Your task to perform on an android device: open app "ZOOM Cloud Meetings" (install if not already installed) and enter user name: "bauxite@icloud.com" and password: "dim" Image 0: 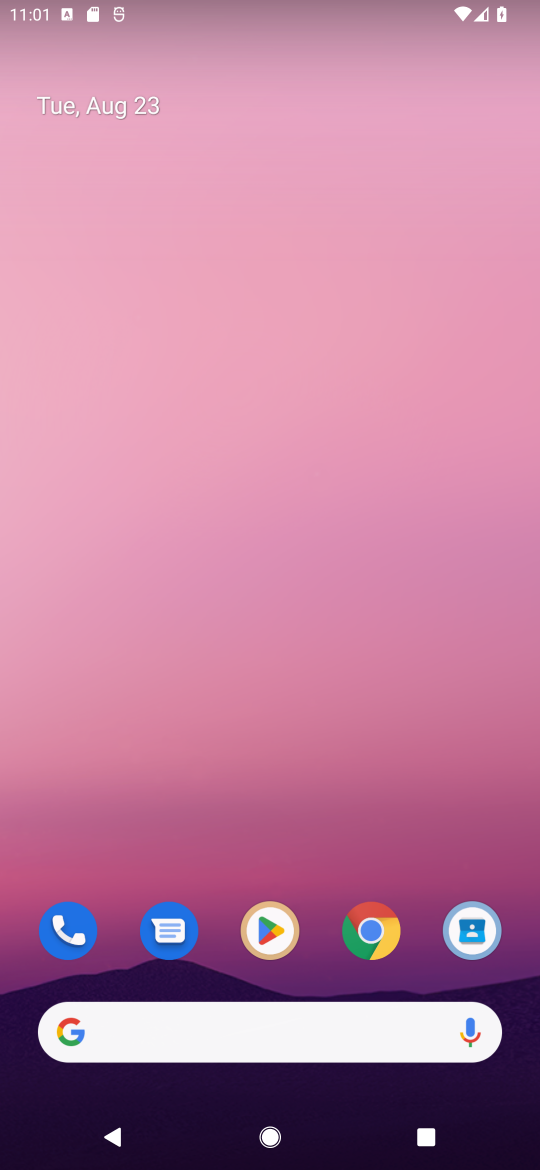
Step 0: click (280, 908)
Your task to perform on an android device: open app "ZOOM Cloud Meetings" (install if not already installed) and enter user name: "bauxite@icloud.com" and password: "dim" Image 1: 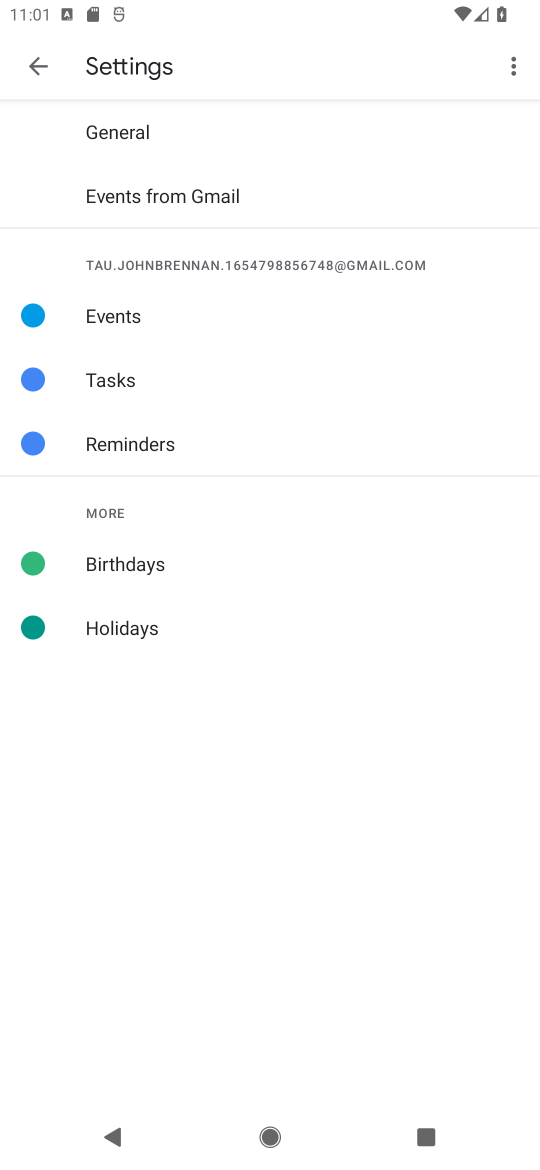
Step 1: press home button
Your task to perform on an android device: open app "ZOOM Cloud Meetings" (install if not already installed) and enter user name: "bauxite@icloud.com" and password: "dim" Image 2: 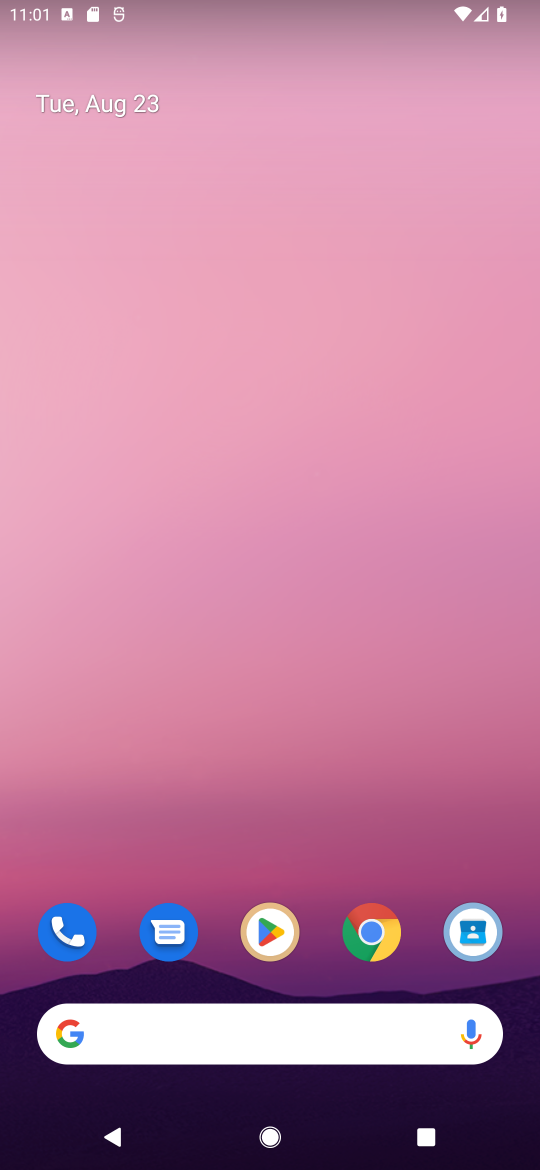
Step 2: click (252, 933)
Your task to perform on an android device: open app "ZOOM Cloud Meetings" (install if not already installed) and enter user name: "bauxite@icloud.com" and password: "dim" Image 3: 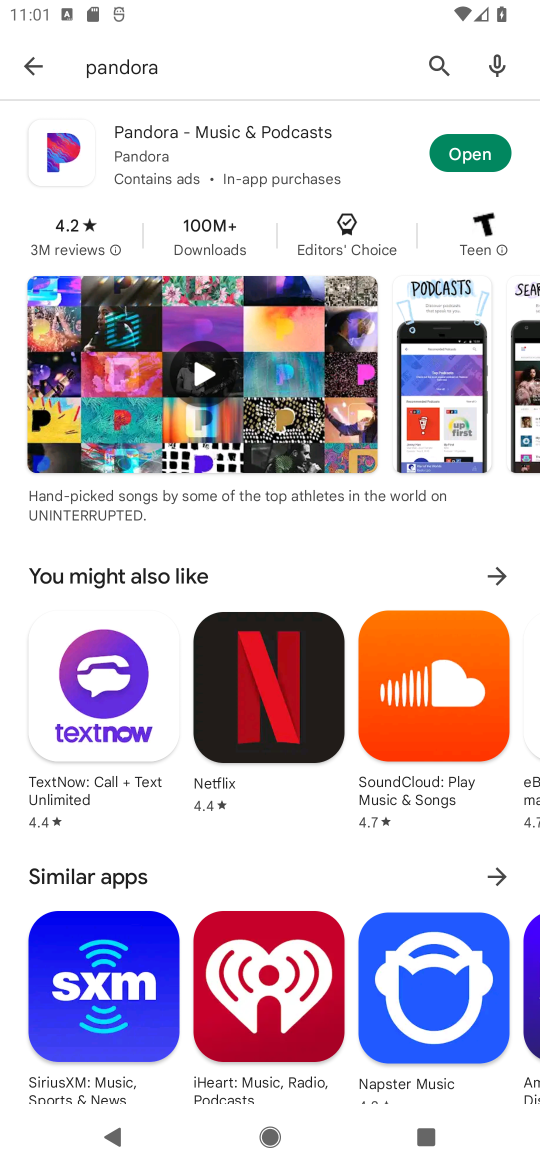
Step 3: click (448, 63)
Your task to perform on an android device: open app "ZOOM Cloud Meetings" (install if not already installed) and enter user name: "bauxite@icloud.com" and password: "dim" Image 4: 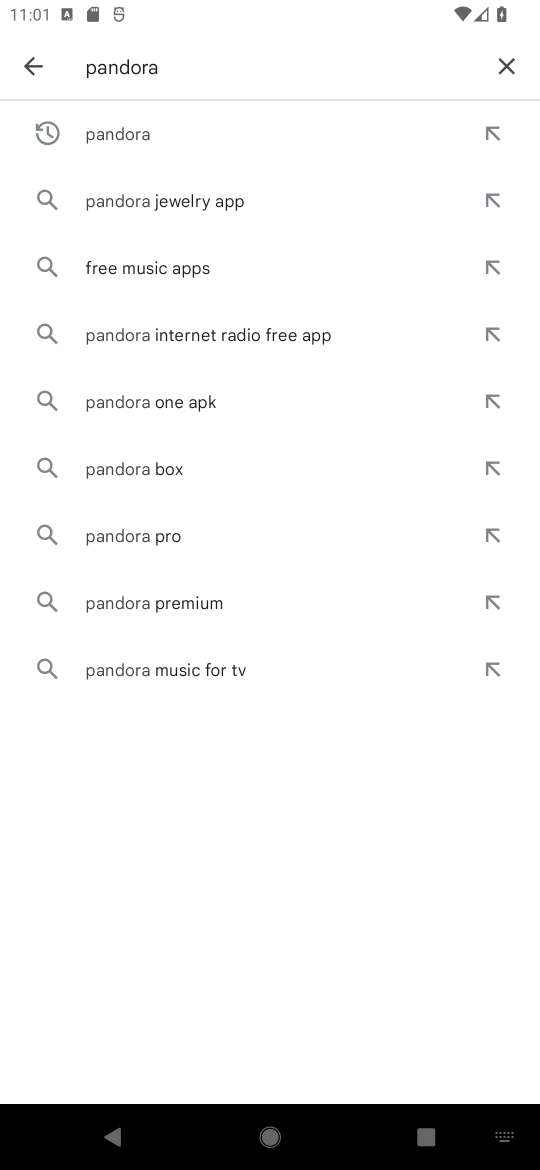
Step 4: click (497, 58)
Your task to perform on an android device: open app "ZOOM Cloud Meetings" (install if not already installed) and enter user name: "bauxite@icloud.com" and password: "dim" Image 5: 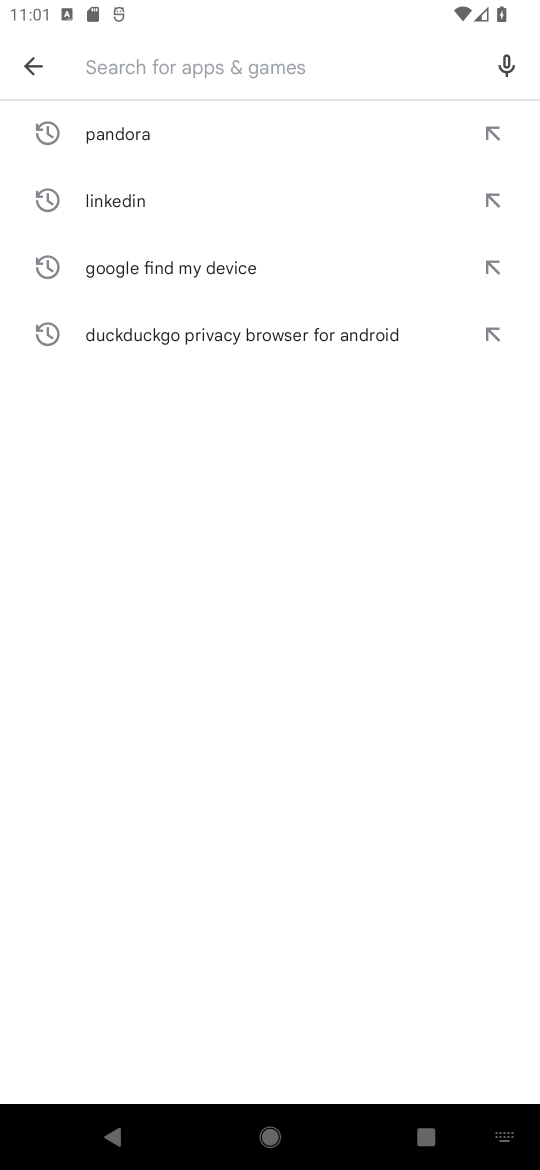
Step 5: click (191, 71)
Your task to perform on an android device: open app "ZOOM Cloud Meetings" (install if not already installed) and enter user name: "bauxite@icloud.com" and password: "dim" Image 6: 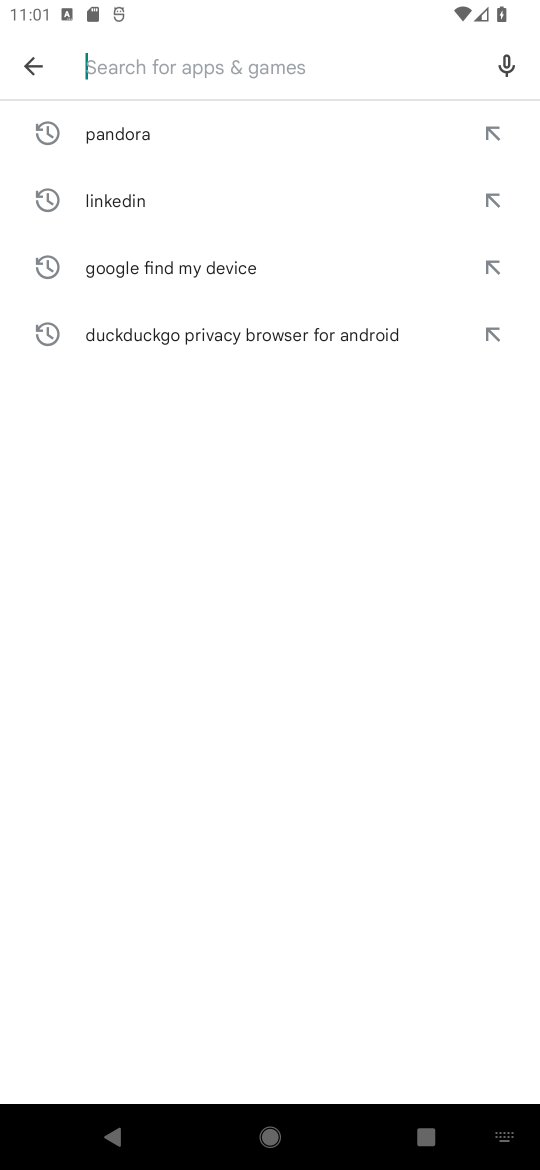
Step 6: type "ZOOM Cloud Meetings"
Your task to perform on an android device: open app "ZOOM Cloud Meetings" (install if not already installed) and enter user name: "bauxite@icloud.com" and password: "dim" Image 7: 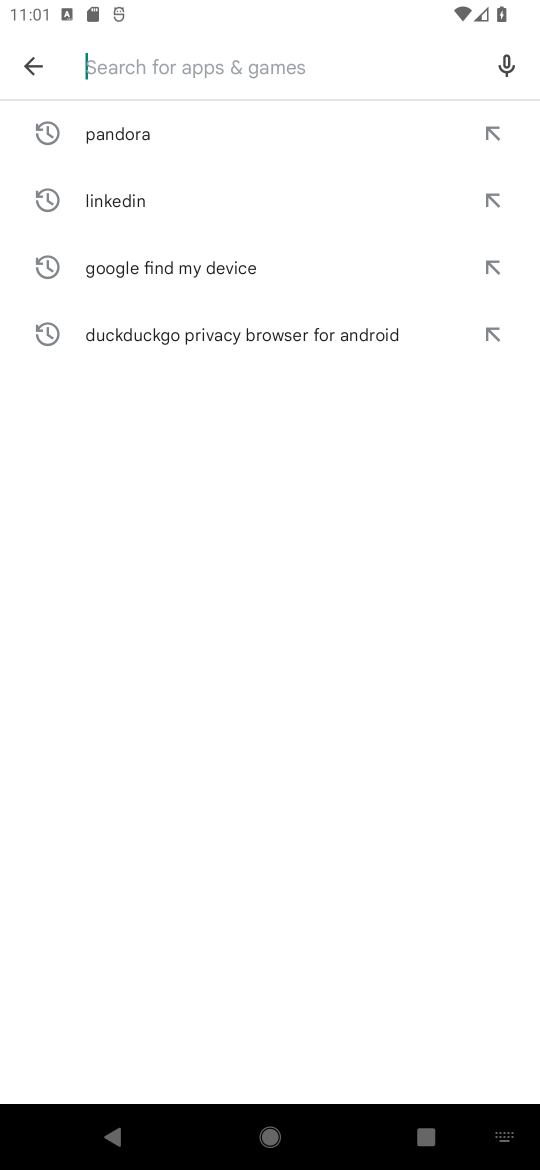
Step 7: click (289, 801)
Your task to perform on an android device: open app "ZOOM Cloud Meetings" (install if not already installed) and enter user name: "bauxite@icloud.com" and password: "dim" Image 8: 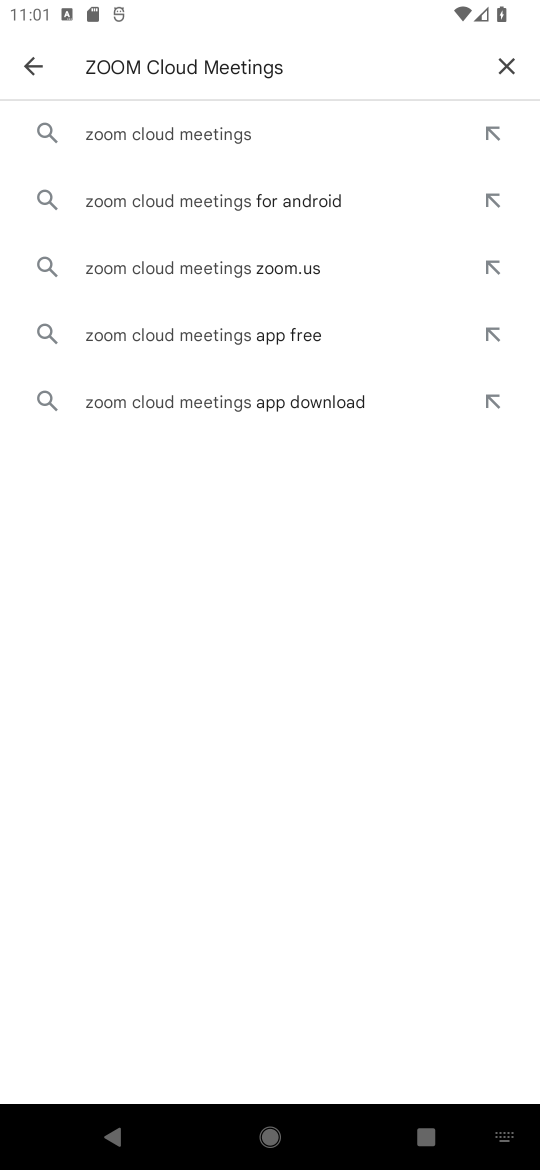
Step 8: click (237, 125)
Your task to perform on an android device: open app "ZOOM Cloud Meetings" (install if not already installed) and enter user name: "bauxite@icloud.com" and password: "dim" Image 9: 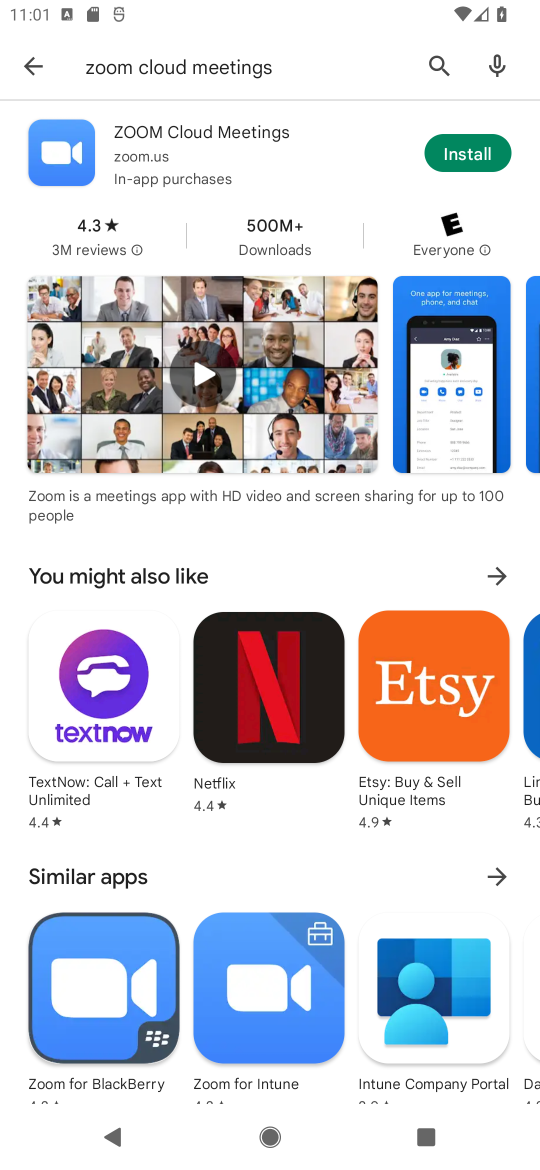
Step 9: click (460, 149)
Your task to perform on an android device: open app "ZOOM Cloud Meetings" (install if not already installed) and enter user name: "bauxite@icloud.com" and password: "dim" Image 10: 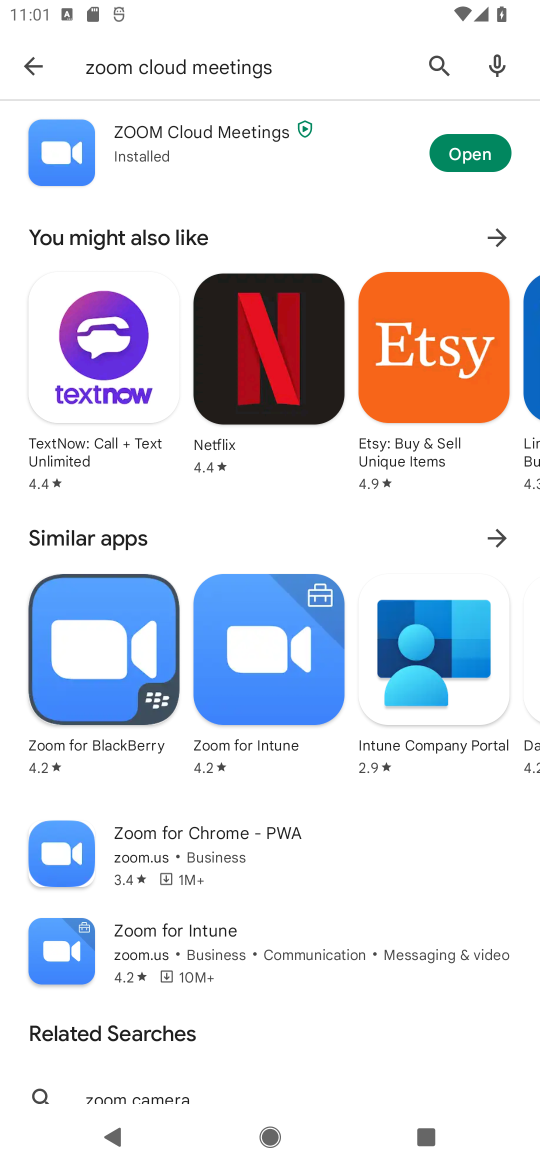
Step 10: click (466, 155)
Your task to perform on an android device: open app "ZOOM Cloud Meetings" (install if not already installed) and enter user name: "bauxite@icloud.com" and password: "dim" Image 11: 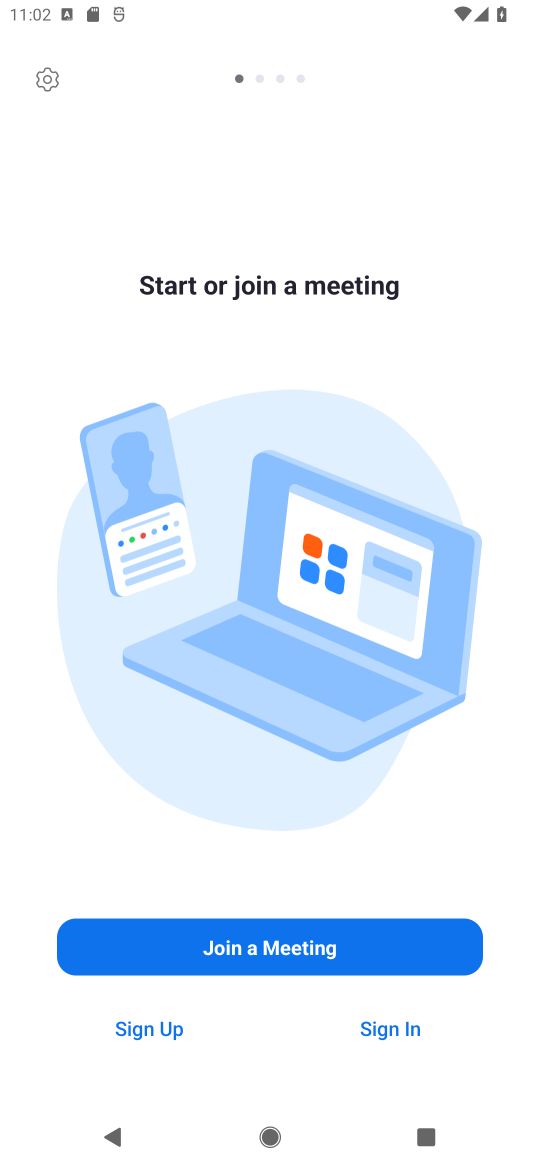
Step 11: click (376, 1009)
Your task to perform on an android device: open app "ZOOM Cloud Meetings" (install if not already installed) and enter user name: "bauxite@icloud.com" and password: "dim" Image 12: 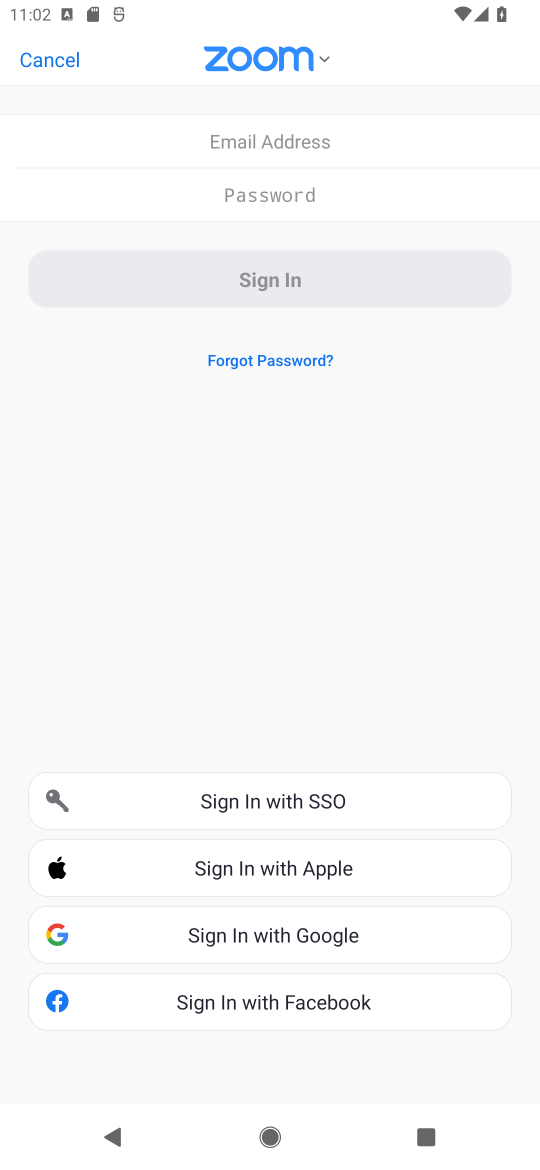
Step 12: click (277, 140)
Your task to perform on an android device: open app "ZOOM Cloud Meetings" (install if not already installed) and enter user name: "bauxite@icloud.com" and password: "dim" Image 13: 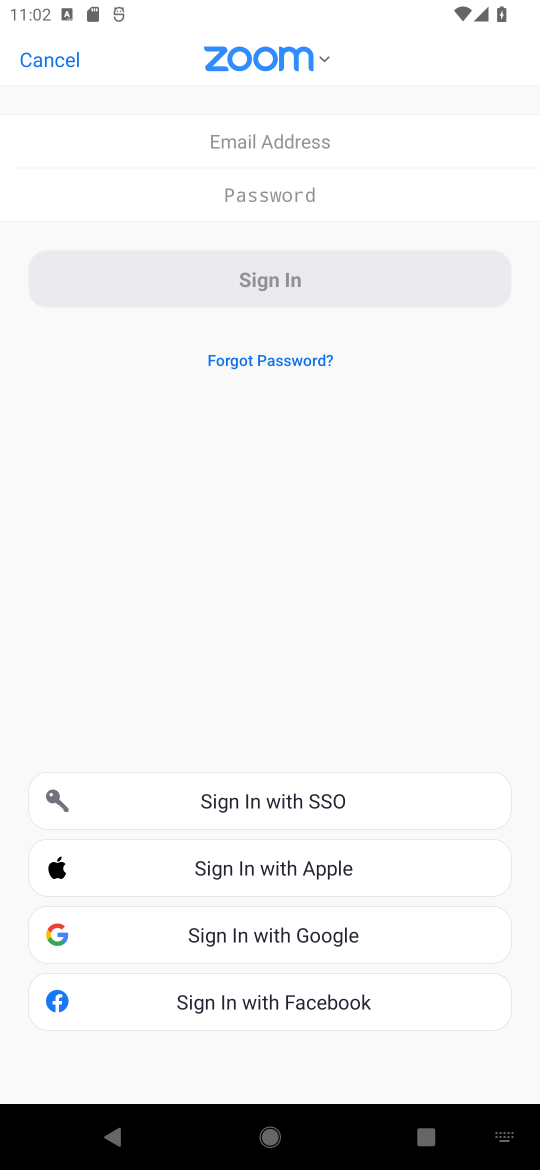
Step 13: click (239, 138)
Your task to perform on an android device: open app "ZOOM Cloud Meetings" (install if not already installed) and enter user name: "bauxite@icloud.com" and password: "dim" Image 14: 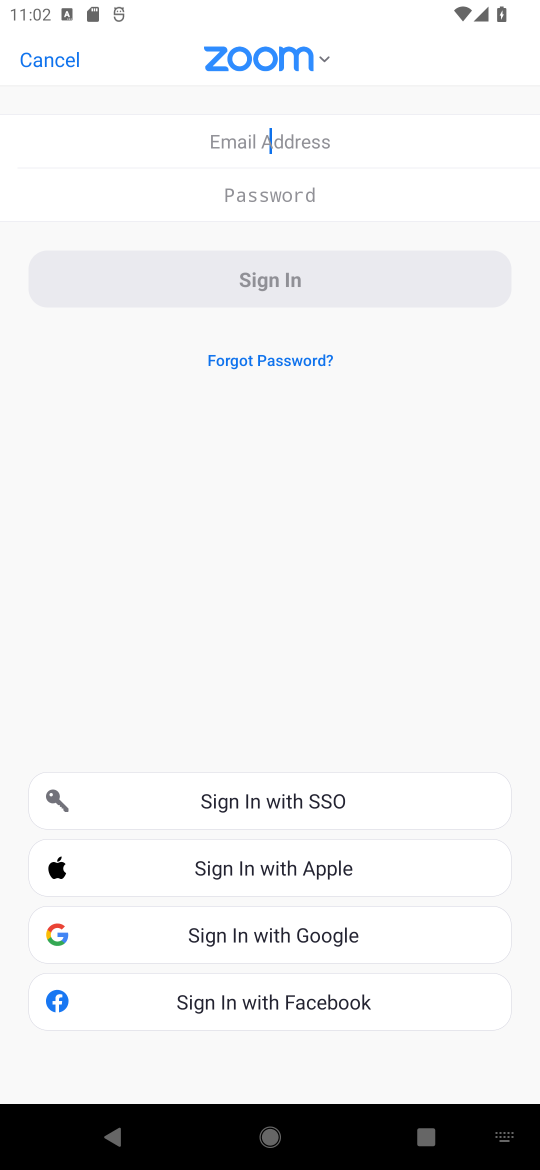
Step 14: type "bauxite@icloud.com"
Your task to perform on an android device: open app "ZOOM Cloud Meetings" (install if not already installed) and enter user name: "bauxite@icloud.com" and password: "dim" Image 15: 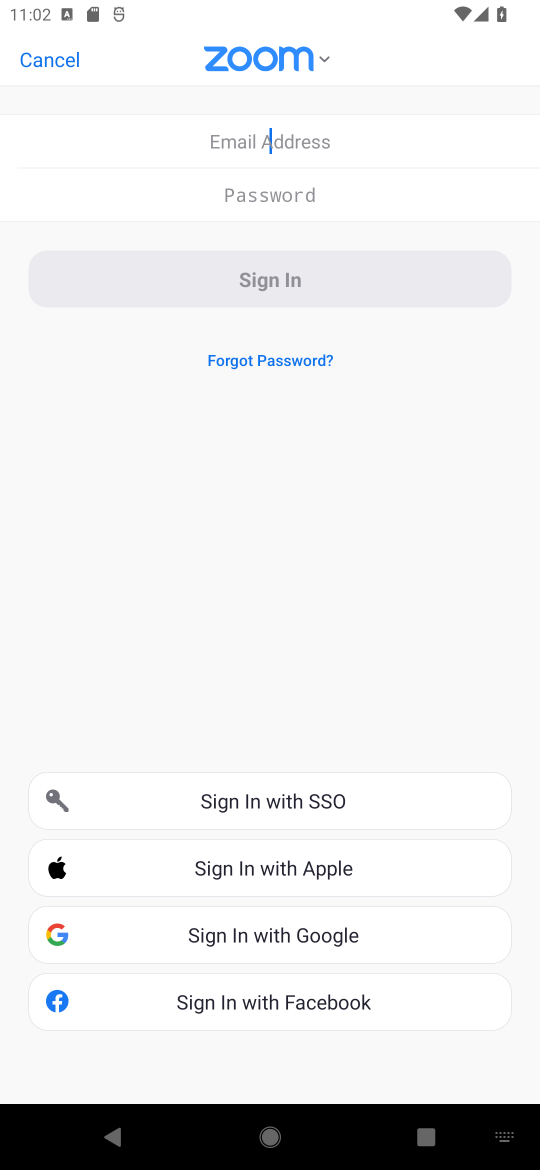
Step 15: click (323, 564)
Your task to perform on an android device: open app "ZOOM Cloud Meetings" (install if not already installed) and enter user name: "bauxite@icloud.com" and password: "dim" Image 16: 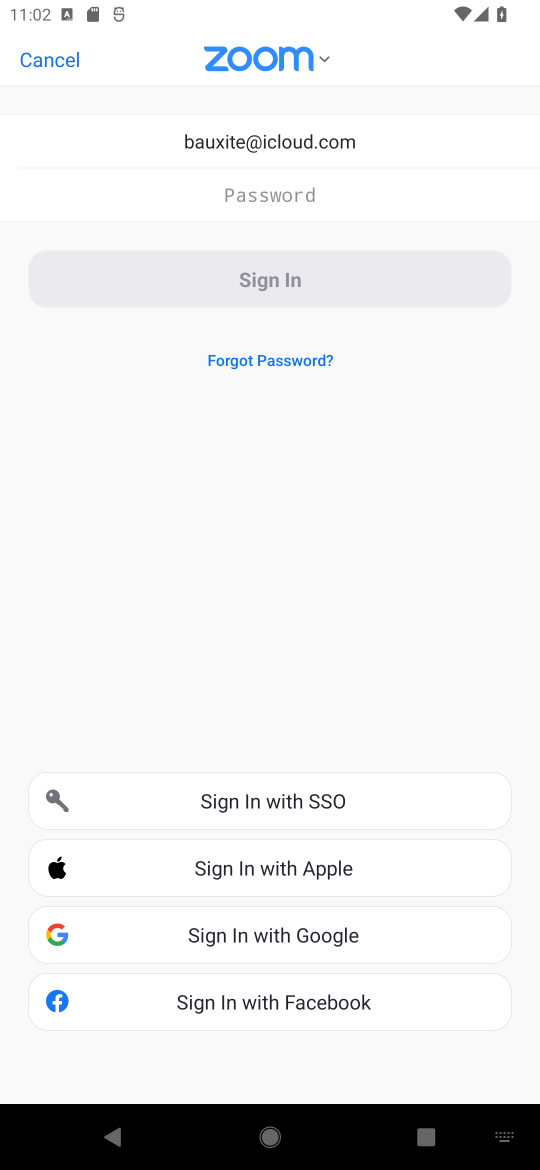
Step 16: click (277, 190)
Your task to perform on an android device: open app "ZOOM Cloud Meetings" (install if not already installed) and enter user name: "bauxite@icloud.com" and password: "dim" Image 17: 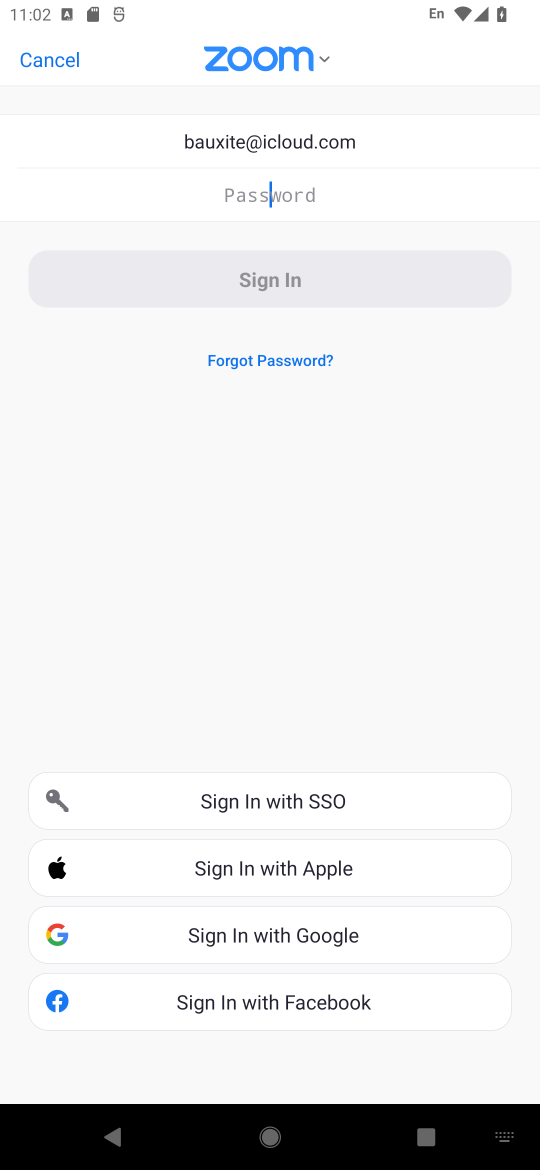
Step 17: click (253, 192)
Your task to perform on an android device: open app "ZOOM Cloud Meetings" (install if not already installed) and enter user name: "bauxite@icloud.com" and password: "dim" Image 18: 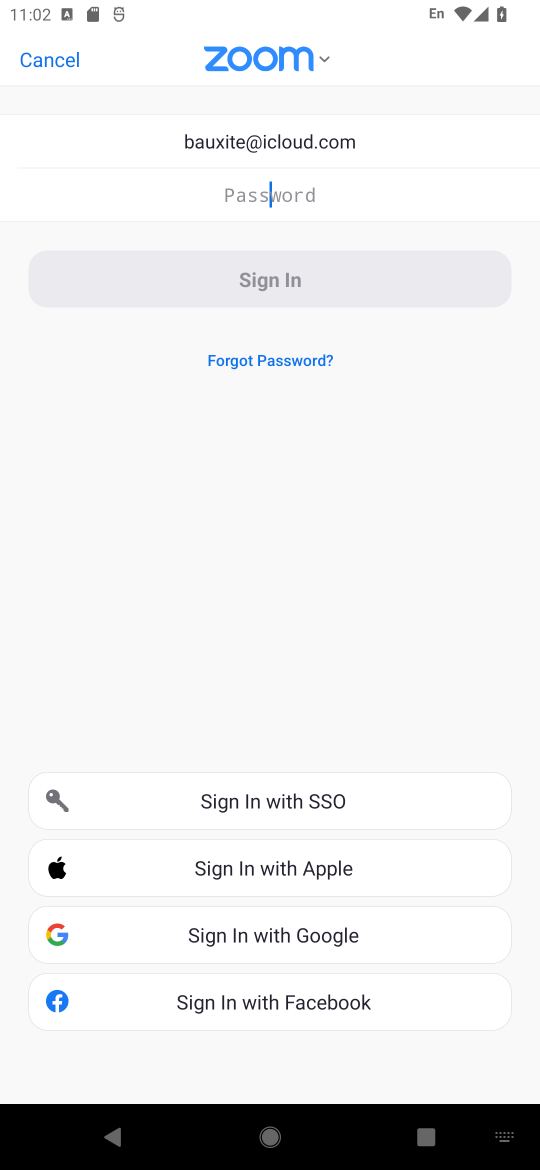
Step 18: type "dim"
Your task to perform on an android device: open app "ZOOM Cloud Meetings" (install if not already installed) and enter user name: "bauxite@icloud.com" and password: "dim" Image 19: 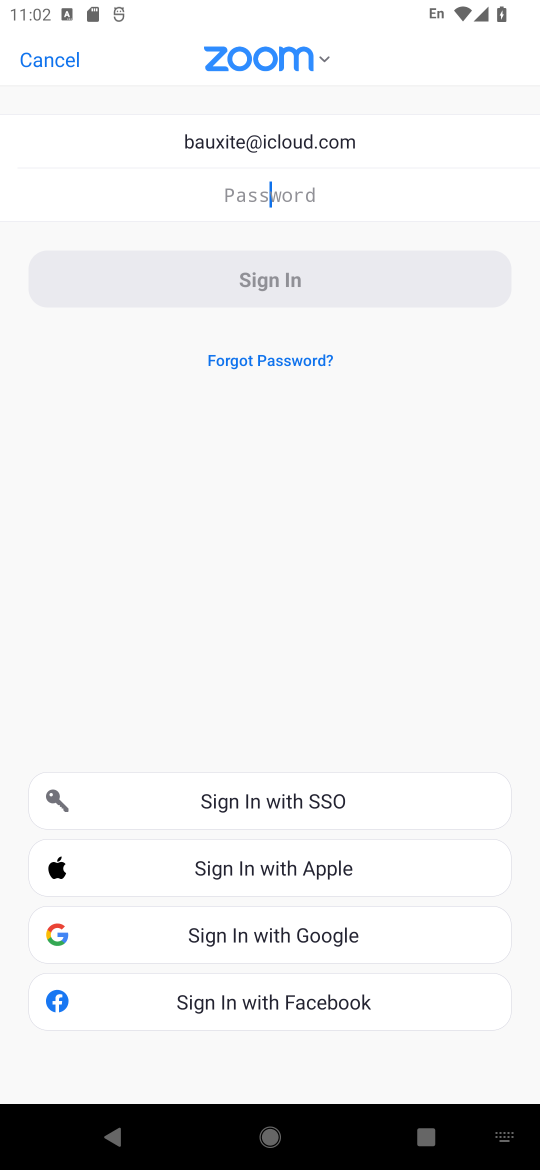
Step 19: click (185, 637)
Your task to perform on an android device: open app "ZOOM Cloud Meetings" (install if not already installed) and enter user name: "bauxite@icloud.com" and password: "dim" Image 20: 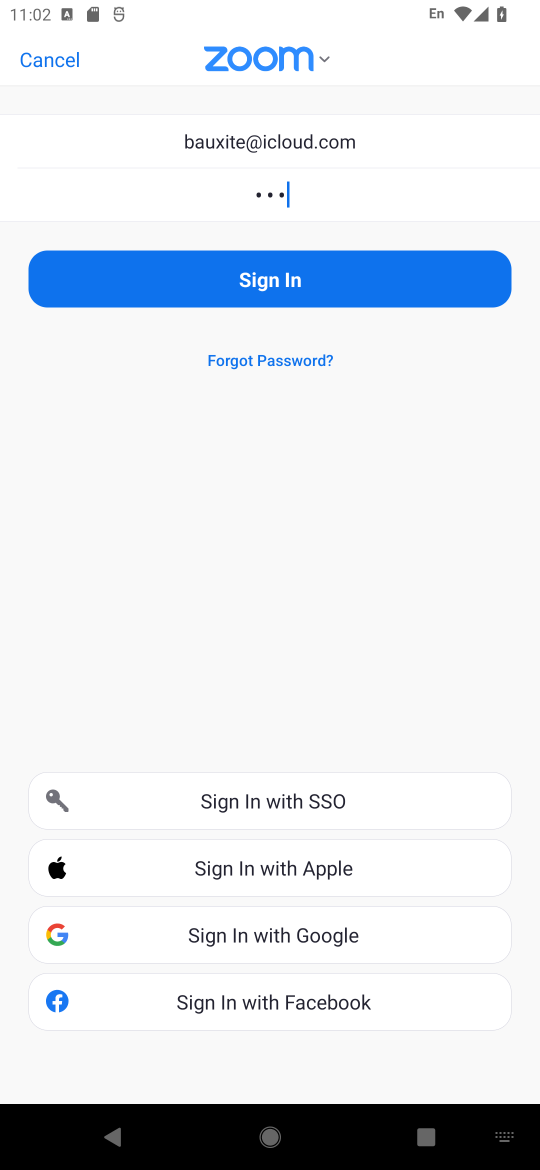
Step 20: task complete